Your task to perform on an android device: Open CNN.com Image 0: 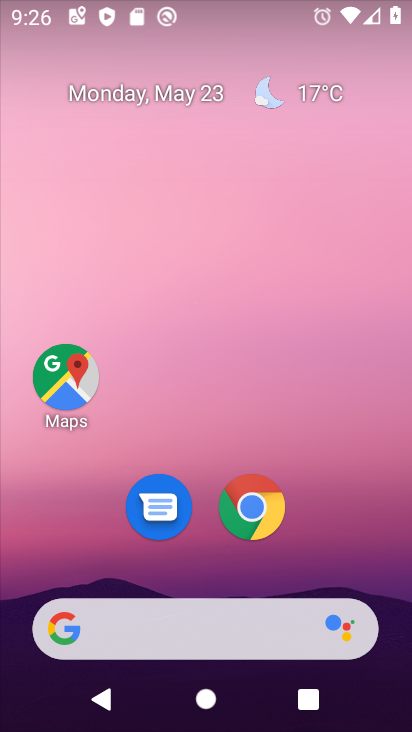
Step 0: click (248, 504)
Your task to perform on an android device: Open CNN.com Image 1: 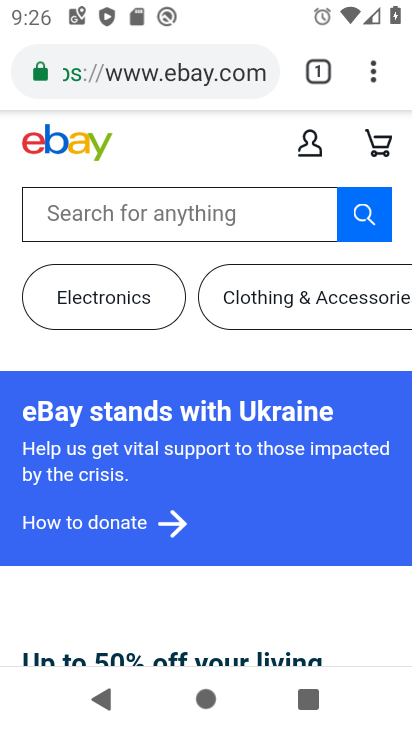
Step 1: click (134, 88)
Your task to perform on an android device: Open CNN.com Image 2: 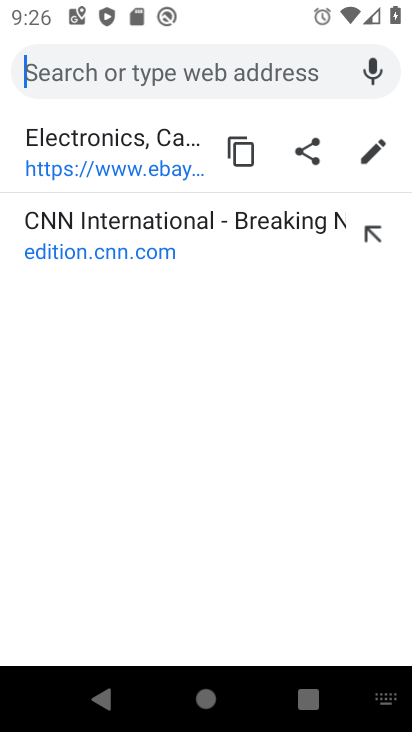
Step 2: click (71, 214)
Your task to perform on an android device: Open CNN.com Image 3: 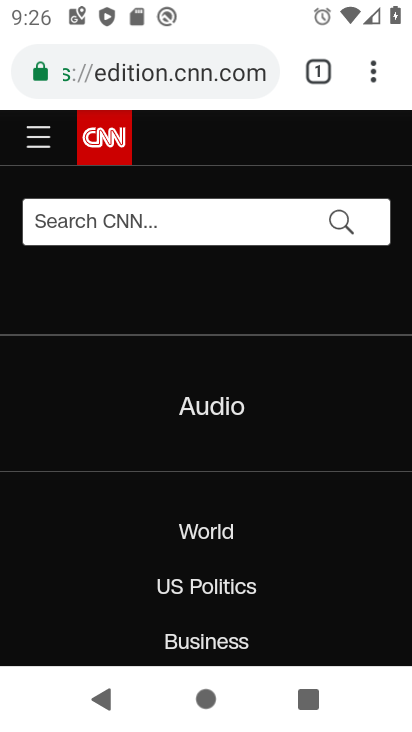
Step 3: task complete